Your task to perform on an android device: Open Chrome and go to settings Image 0: 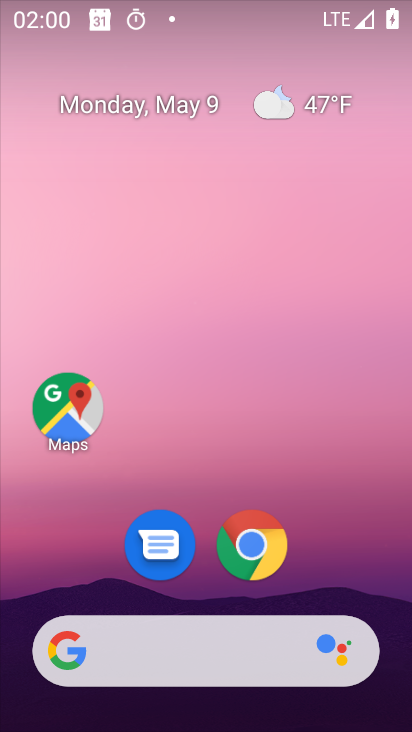
Step 0: drag from (319, 590) to (322, 0)
Your task to perform on an android device: Open Chrome and go to settings Image 1: 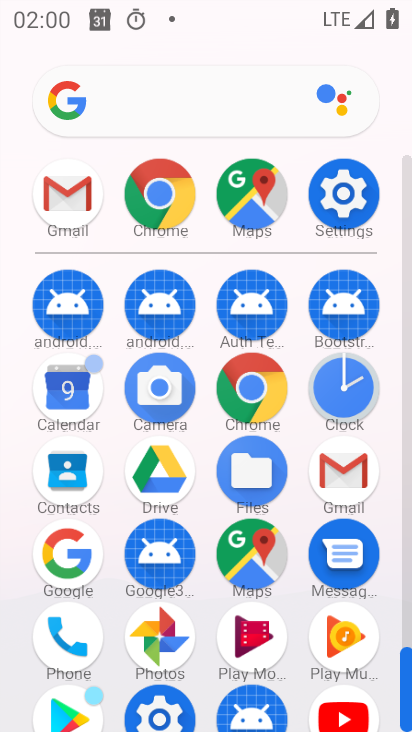
Step 1: click (240, 379)
Your task to perform on an android device: Open Chrome and go to settings Image 2: 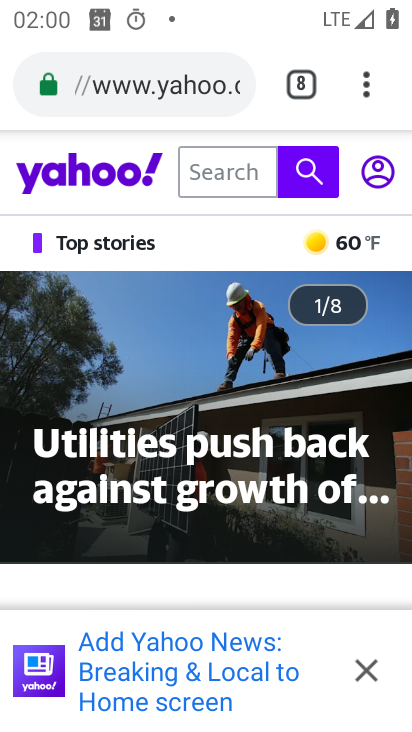
Step 2: drag from (364, 86) to (129, 615)
Your task to perform on an android device: Open Chrome and go to settings Image 3: 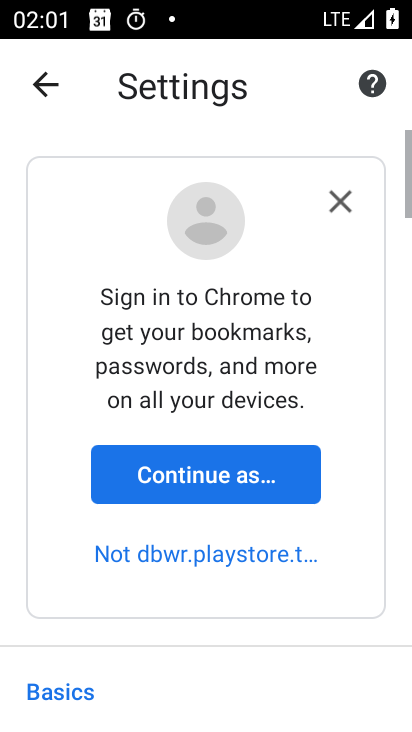
Step 3: drag from (222, 680) to (209, 91)
Your task to perform on an android device: Open Chrome and go to settings Image 4: 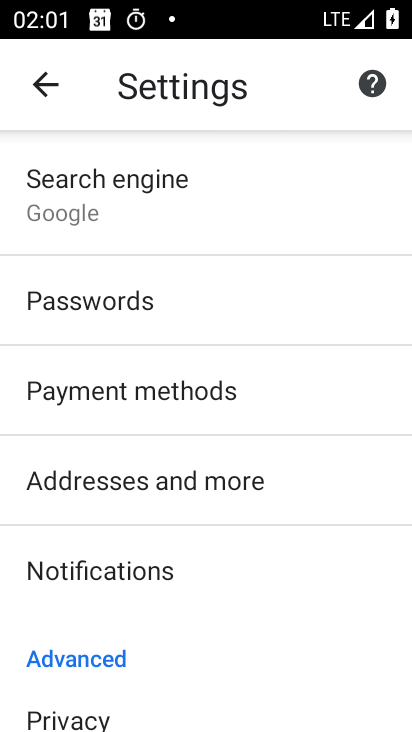
Step 4: drag from (225, 706) to (196, 74)
Your task to perform on an android device: Open Chrome and go to settings Image 5: 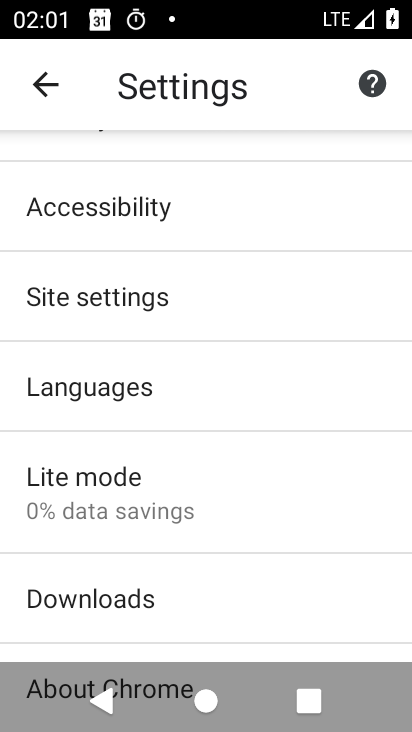
Step 5: click (198, 296)
Your task to perform on an android device: Open Chrome and go to settings Image 6: 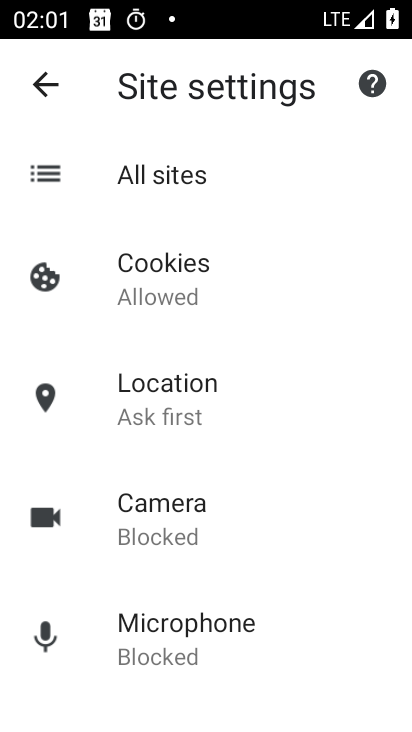
Step 6: task complete